Your task to perform on an android device: change the clock display to show seconds Image 0: 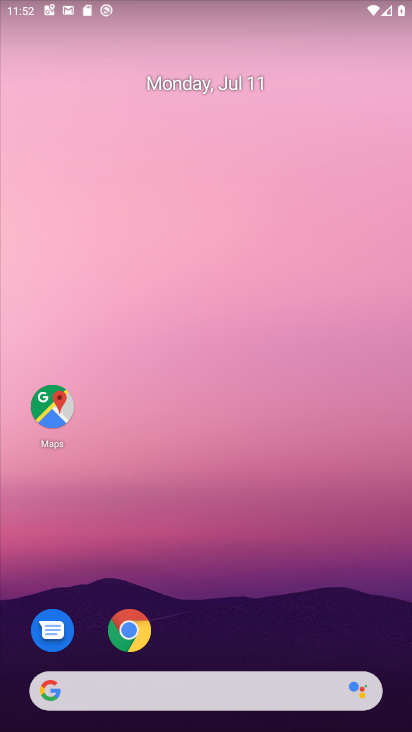
Step 0: drag from (246, 646) to (290, 165)
Your task to perform on an android device: change the clock display to show seconds Image 1: 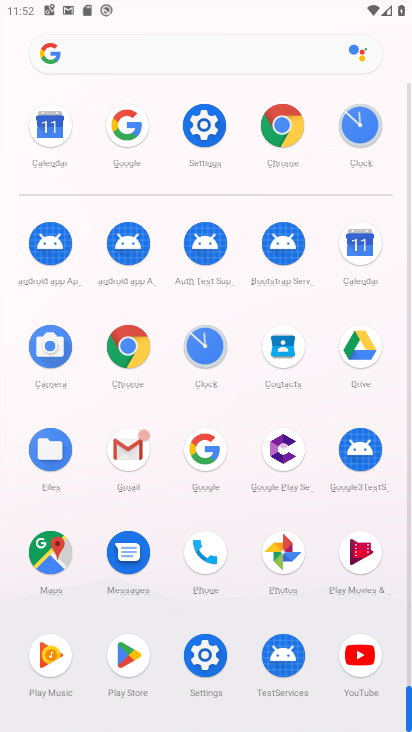
Step 1: click (202, 367)
Your task to perform on an android device: change the clock display to show seconds Image 2: 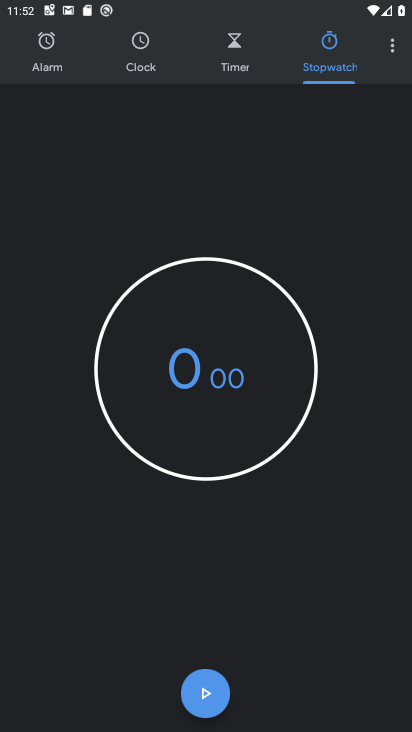
Step 2: click (388, 54)
Your task to perform on an android device: change the clock display to show seconds Image 3: 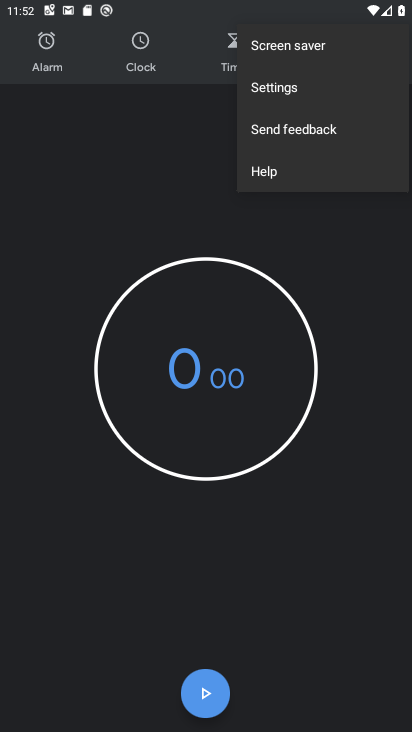
Step 3: click (289, 86)
Your task to perform on an android device: change the clock display to show seconds Image 4: 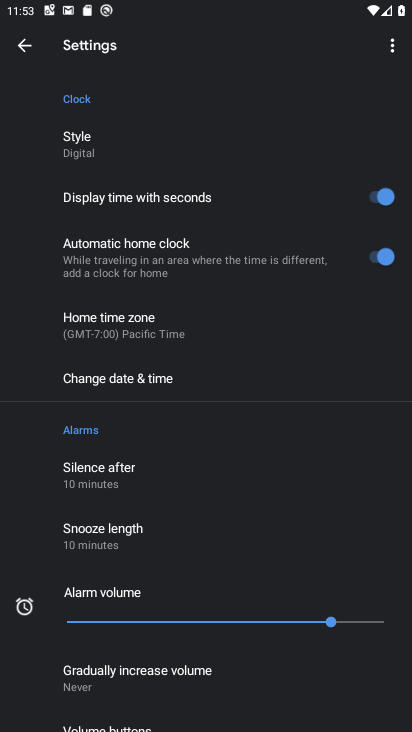
Step 4: task complete